Your task to perform on an android device: Is it going to rain today? Image 0: 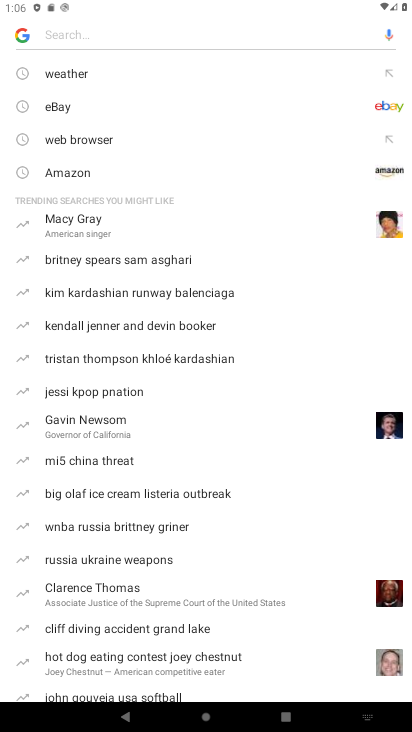
Step 0: press home button
Your task to perform on an android device: Is it going to rain today? Image 1: 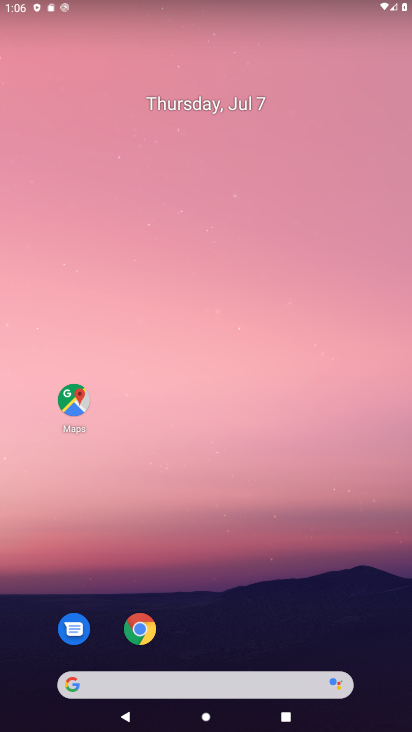
Step 1: drag from (247, 606) to (282, 85)
Your task to perform on an android device: Is it going to rain today? Image 2: 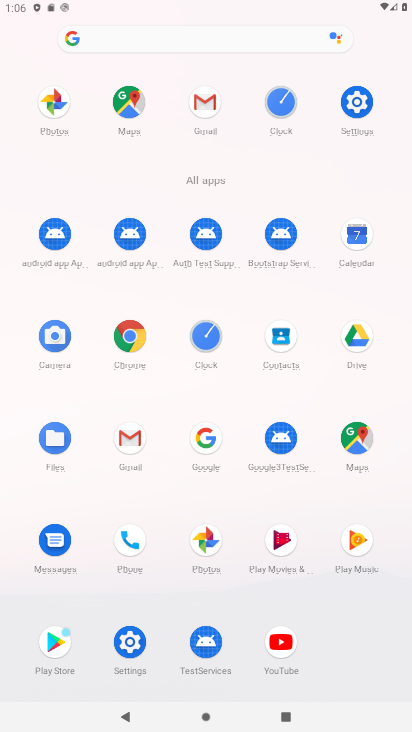
Step 2: click (134, 332)
Your task to perform on an android device: Is it going to rain today? Image 3: 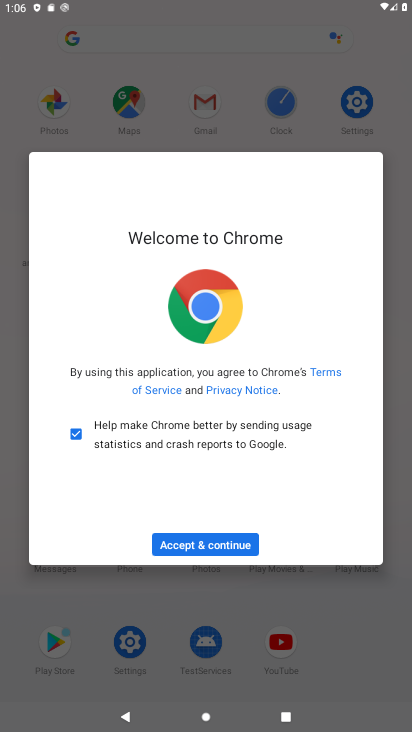
Step 3: click (220, 544)
Your task to perform on an android device: Is it going to rain today? Image 4: 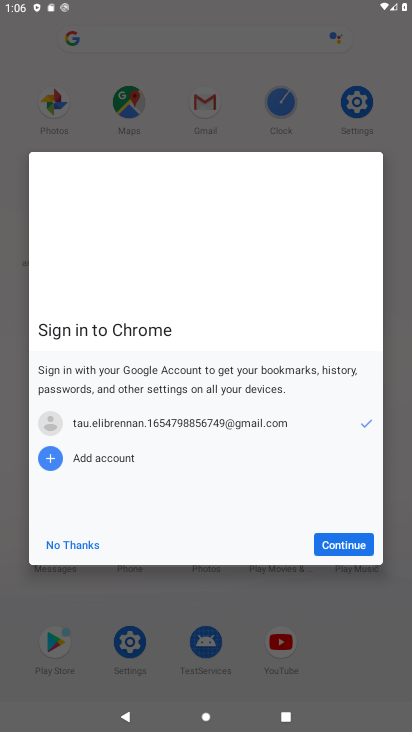
Step 4: click (357, 540)
Your task to perform on an android device: Is it going to rain today? Image 5: 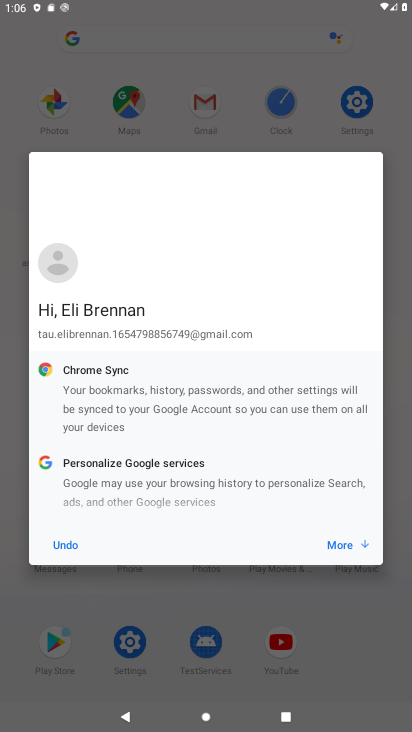
Step 5: click (357, 540)
Your task to perform on an android device: Is it going to rain today? Image 6: 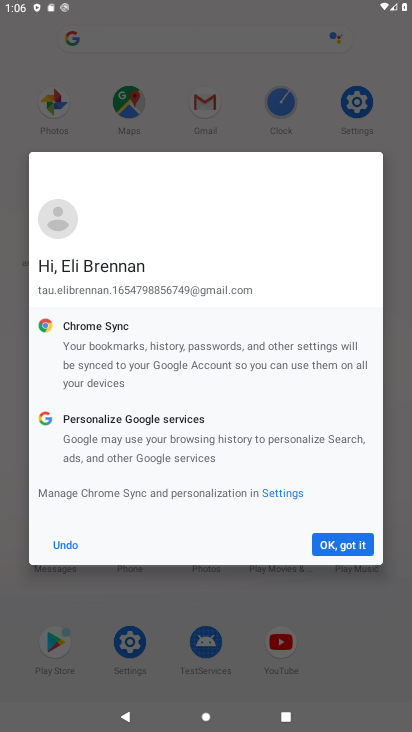
Step 6: click (357, 540)
Your task to perform on an android device: Is it going to rain today? Image 7: 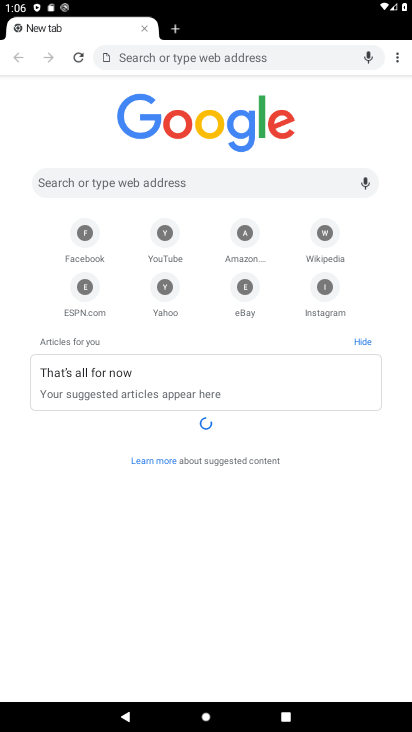
Step 7: click (266, 53)
Your task to perform on an android device: Is it going to rain today? Image 8: 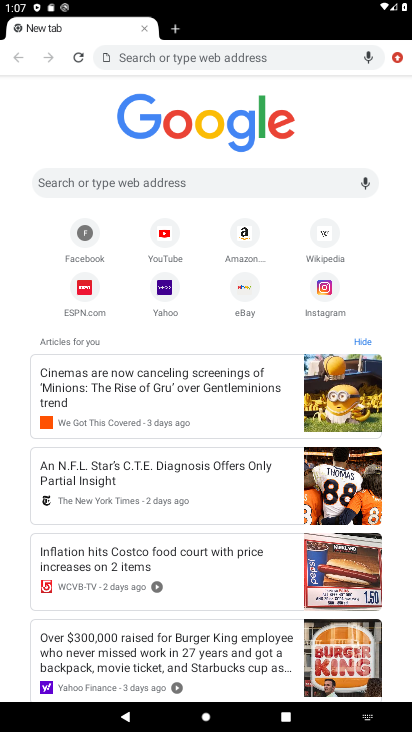
Step 8: type "Is it going to rain today?"
Your task to perform on an android device: Is it going to rain today? Image 9: 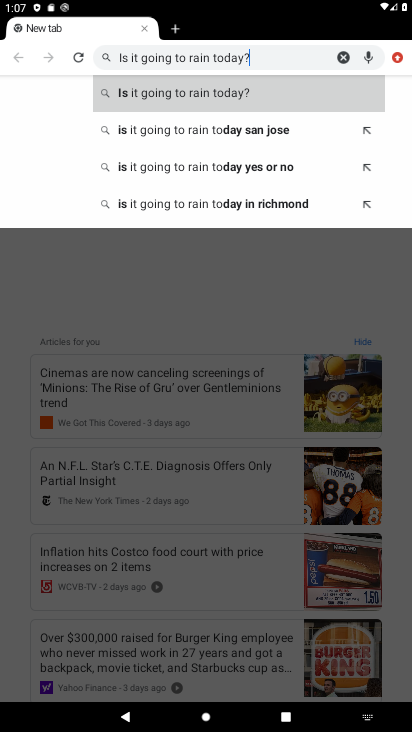
Step 9: click (183, 97)
Your task to perform on an android device: Is it going to rain today? Image 10: 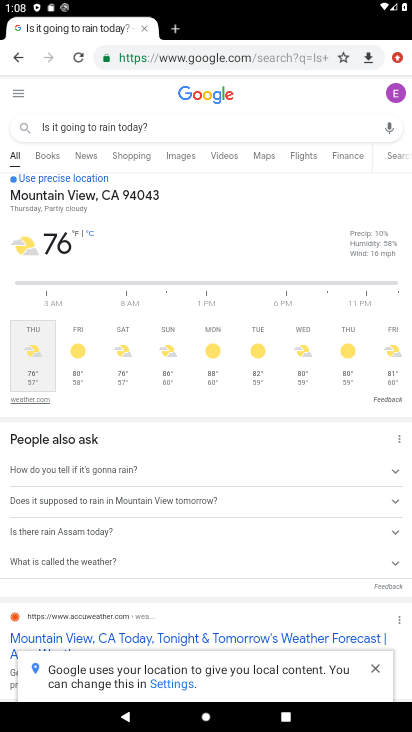
Step 10: task complete